Your task to perform on an android device: Open display settings Image 0: 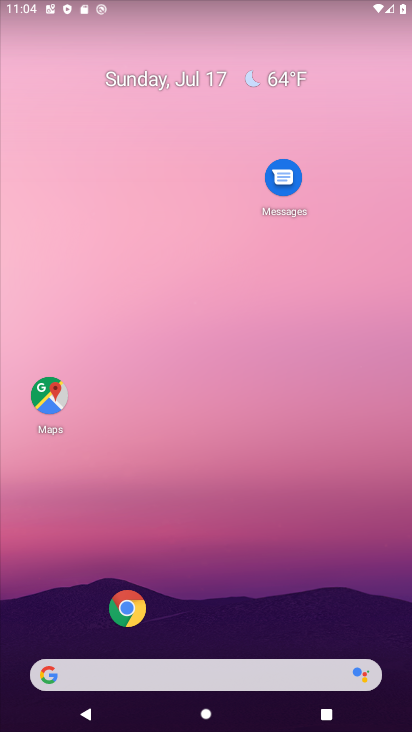
Step 0: drag from (51, 704) to (178, 110)
Your task to perform on an android device: Open display settings Image 1: 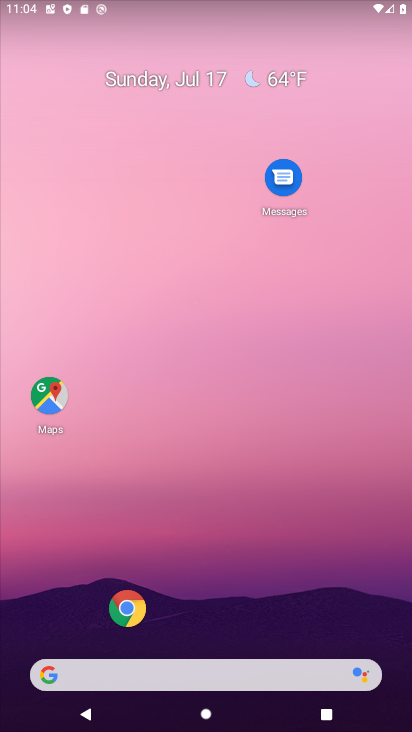
Step 1: drag from (90, 471) to (151, 129)
Your task to perform on an android device: Open display settings Image 2: 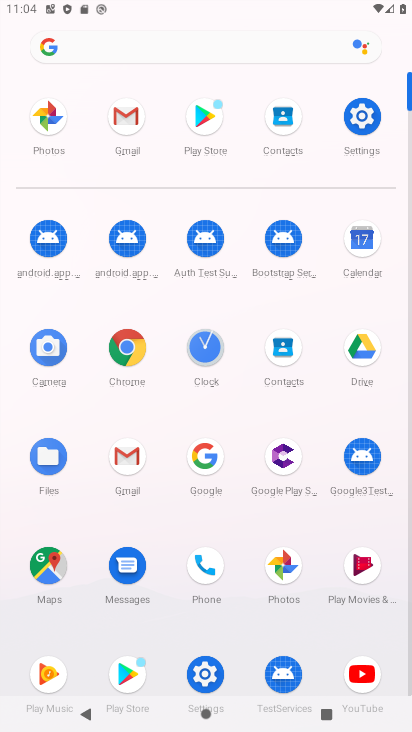
Step 2: click (192, 674)
Your task to perform on an android device: Open display settings Image 3: 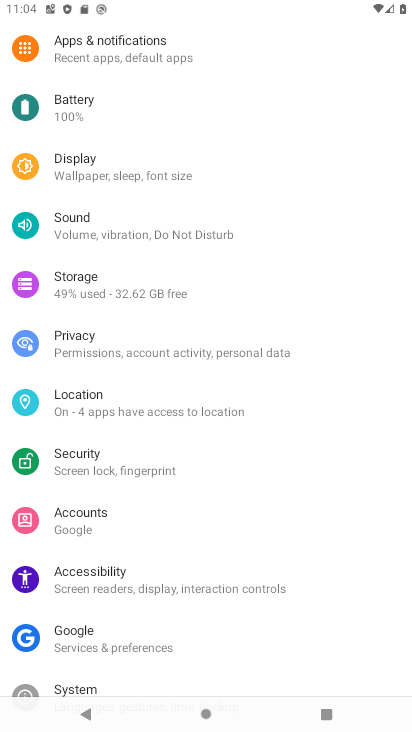
Step 3: click (101, 161)
Your task to perform on an android device: Open display settings Image 4: 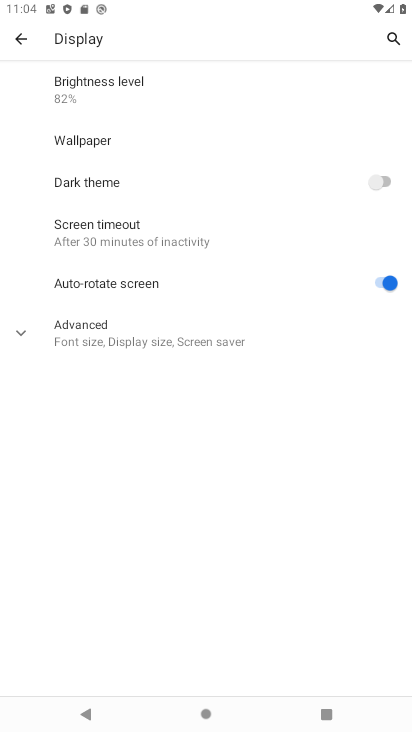
Step 4: task complete